Your task to perform on an android device: create a new album in the google photos Image 0: 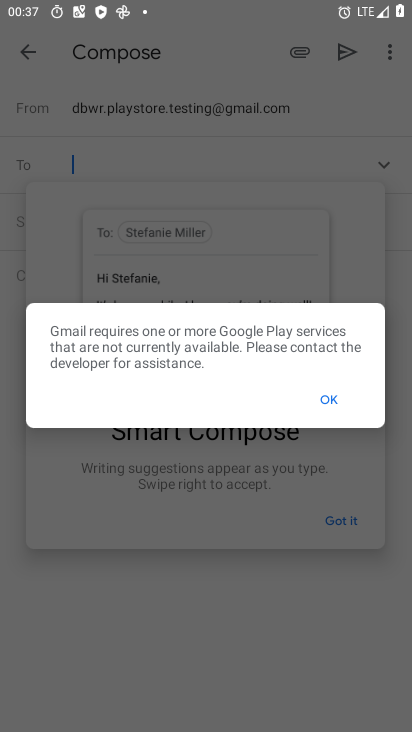
Step 0: press home button
Your task to perform on an android device: create a new album in the google photos Image 1: 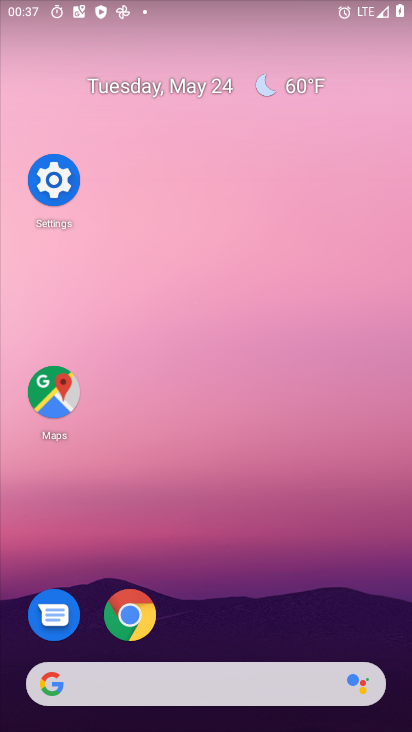
Step 1: drag from (221, 594) to (250, 54)
Your task to perform on an android device: create a new album in the google photos Image 2: 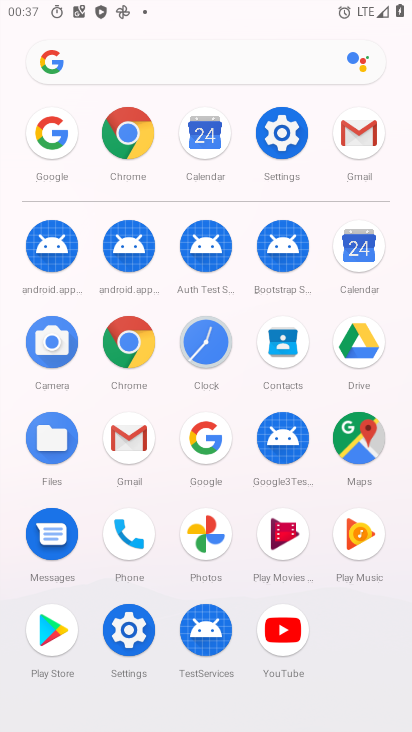
Step 2: click (211, 532)
Your task to perform on an android device: create a new album in the google photos Image 3: 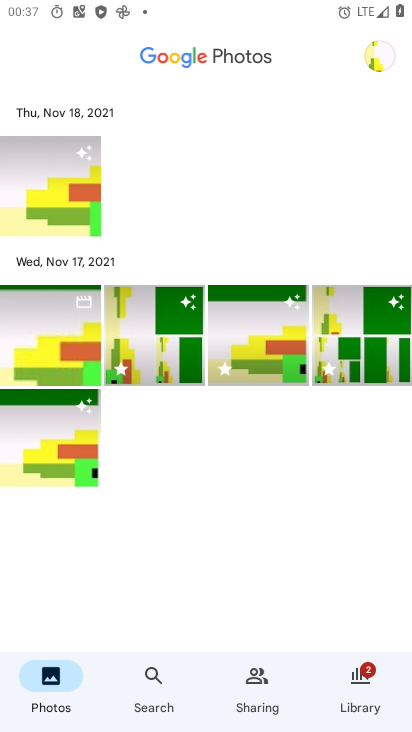
Step 3: click (360, 687)
Your task to perform on an android device: create a new album in the google photos Image 4: 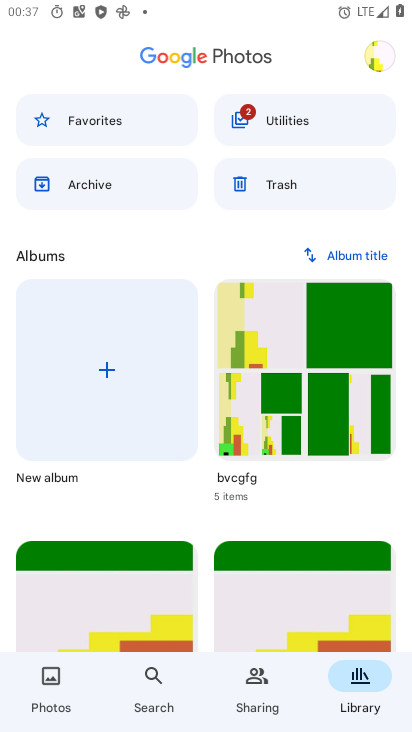
Step 4: click (107, 378)
Your task to perform on an android device: create a new album in the google photos Image 5: 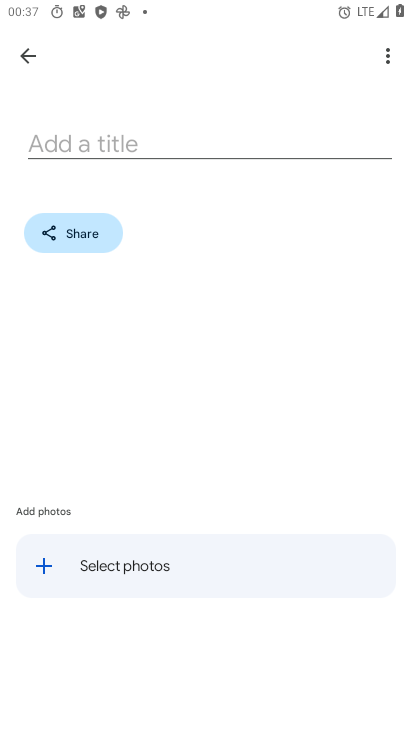
Step 5: click (96, 139)
Your task to perform on an android device: create a new album in the google photos Image 6: 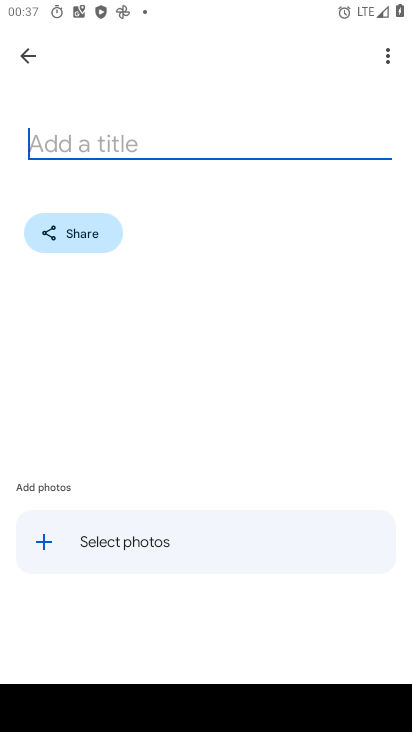
Step 6: type "jhfyuyhj"
Your task to perform on an android device: create a new album in the google photos Image 7: 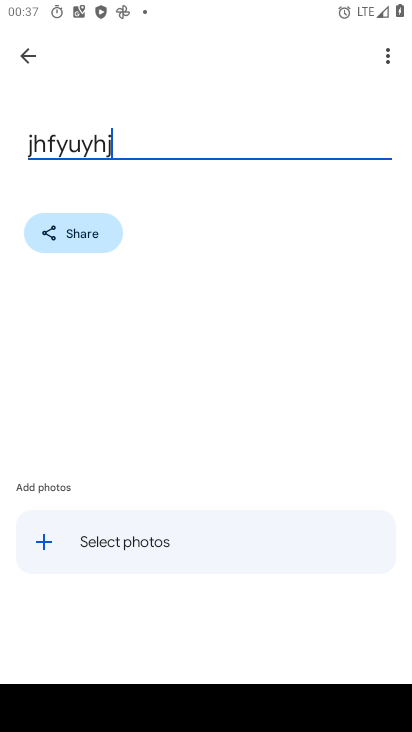
Step 7: click (40, 544)
Your task to perform on an android device: create a new album in the google photos Image 8: 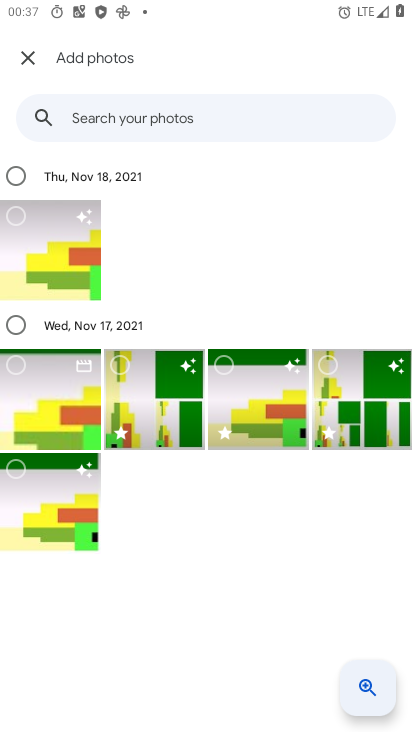
Step 8: click (52, 252)
Your task to perform on an android device: create a new album in the google photos Image 9: 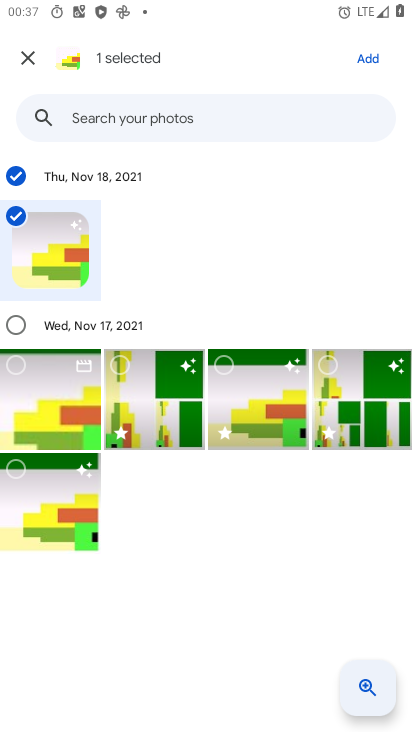
Step 9: click (365, 59)
Your task to perform on an android device: create a new album in the google photos Image 10: 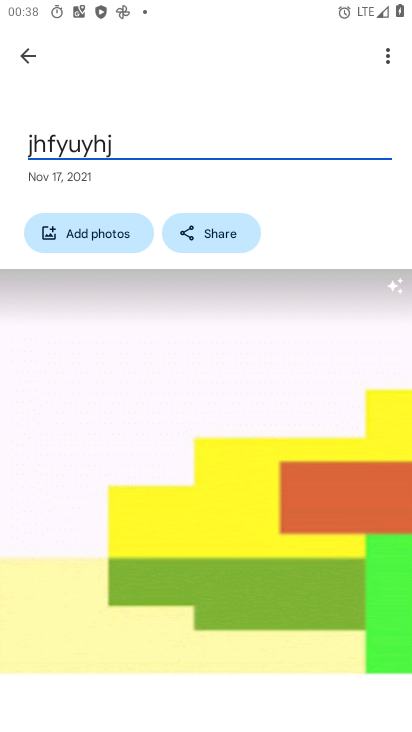
Step 10: task complete